Your task to perform on an android device: Open Chrome and go to the settings page Image 0: 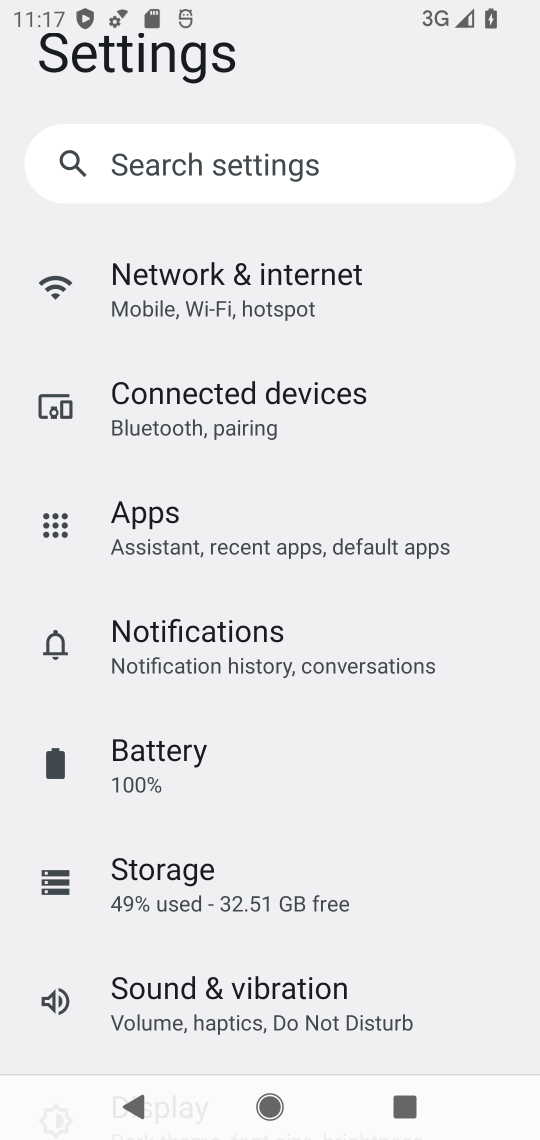
Step 0: press home button
Your task to perform on an android device: Open Chrome and go to the settings page Image 1: 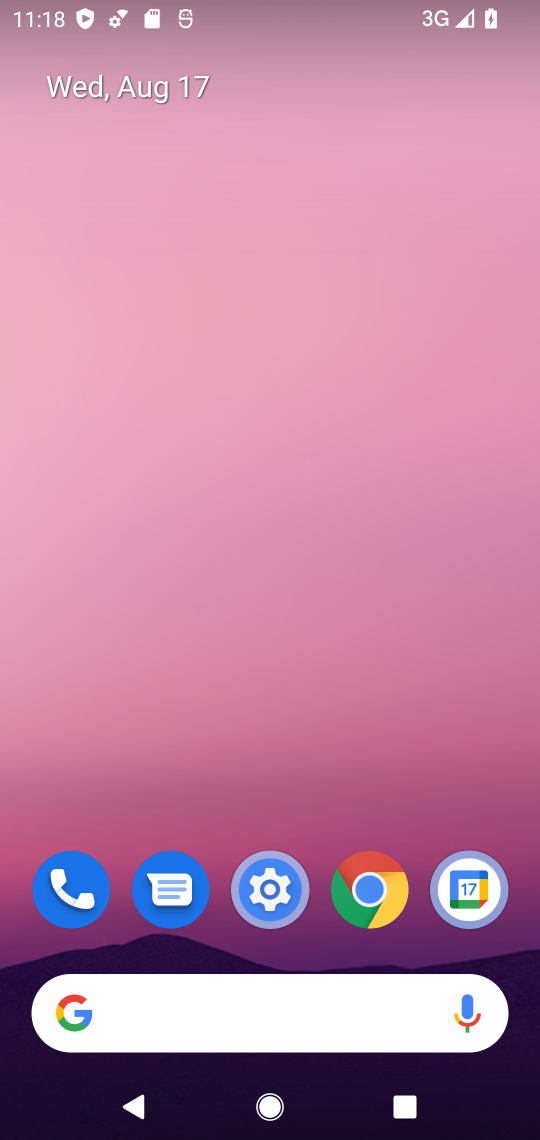
Step 1: click (364, 883)
Your task to perform on an android device: Open Chrome and go to the settings page Image 2: 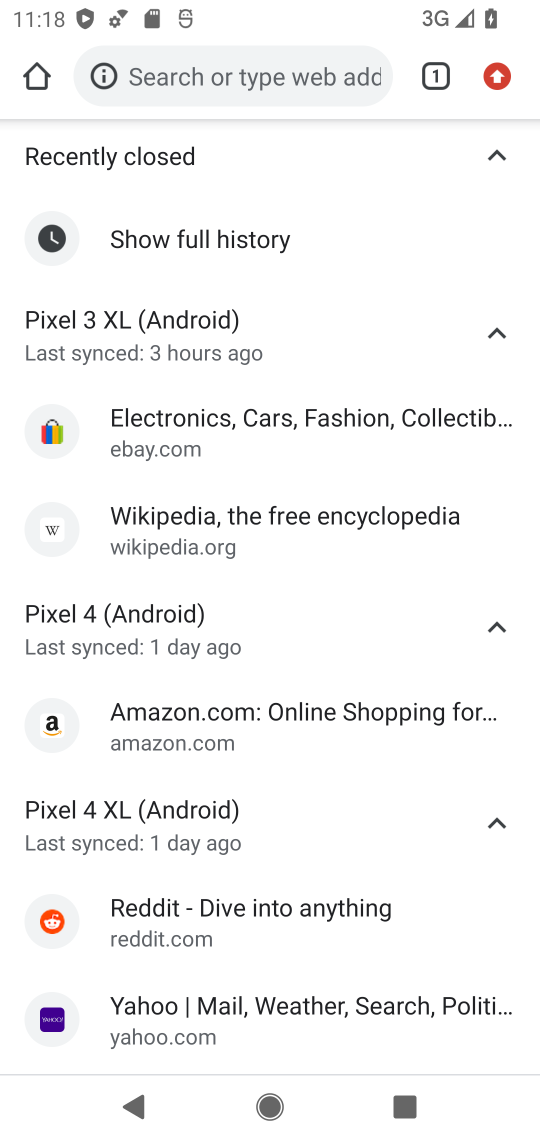
Step 2: click (497, 70)
Your task to perform on an android device: Open Chrome and go to the settings page Image 3: 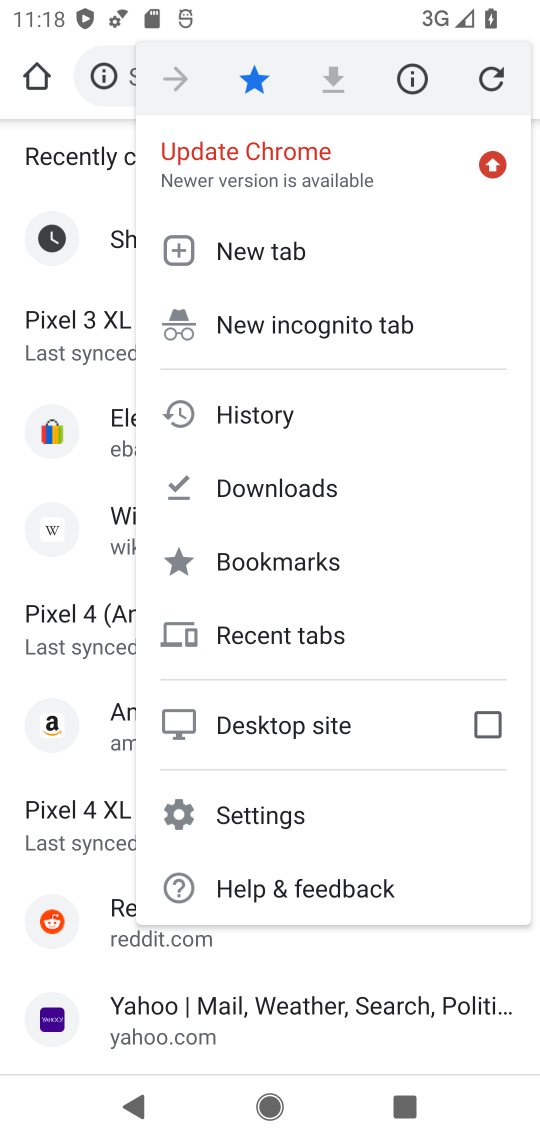
Step 3: click (264, 811)
Your task to perform on an android device: Open Chrome and go to the settings page Image 4: 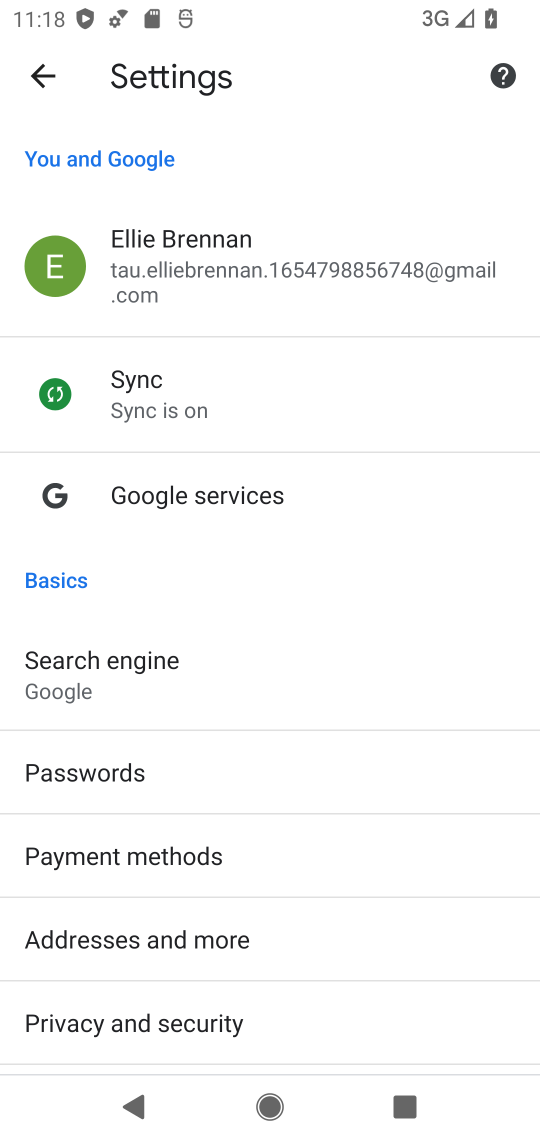
Step 4: task complete